Your task to perform on an android device: Go to Android settings Image 0: 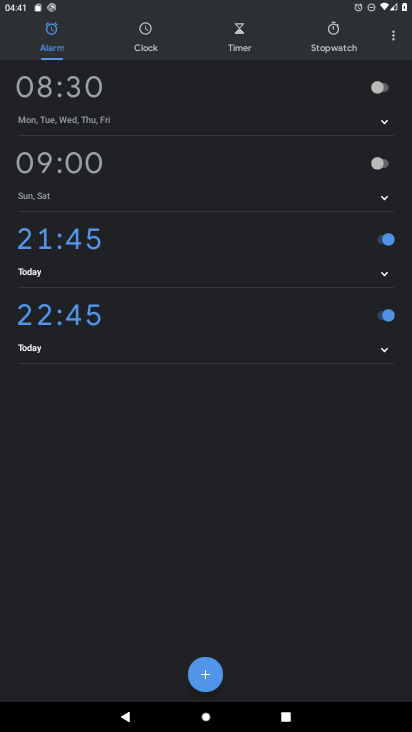
Step 0: press home button
Your task to perform on an android device: Go to Android settings Image 1: 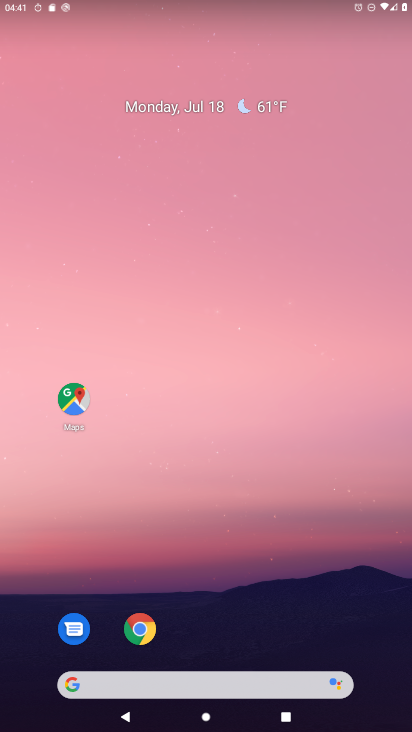
Step 1: drag from (194, 688) to (294, 73)
Your task to perform on an android device: Go to Android settings Image 2: 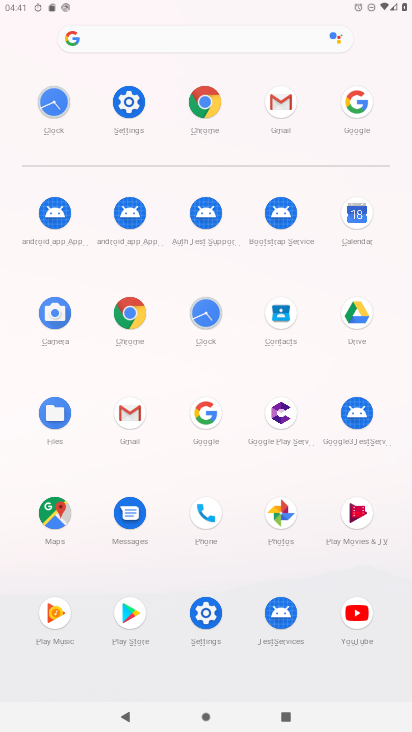
Step 2: click (129, 103)
Your task to perform on an android device: Go to Android settings Image 3: 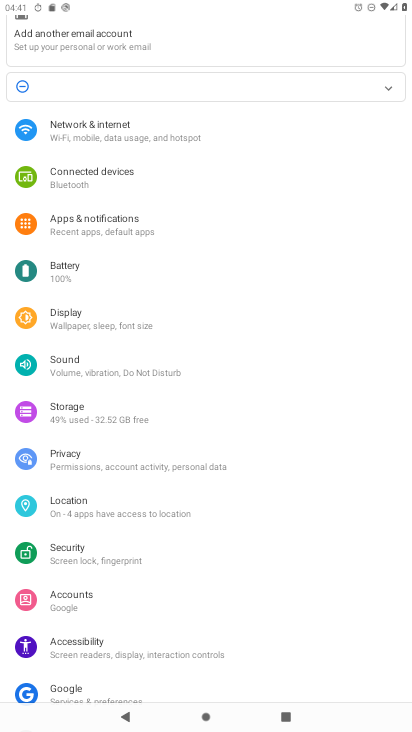
Step 3: task complete